Your task to perform on an android device: open a bookmark in the chrome app Image 0: 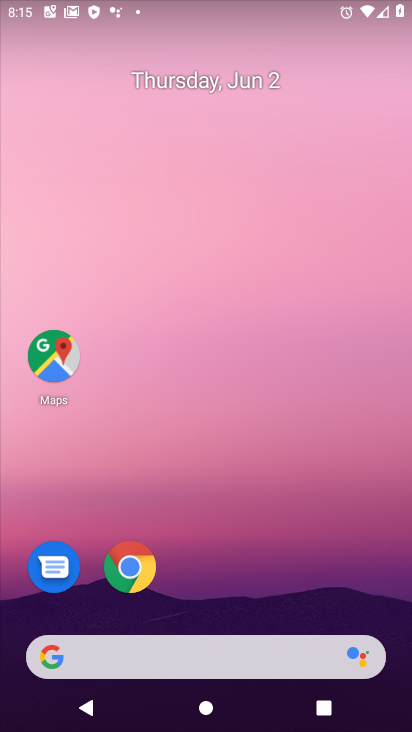
Step 0: click (132, 566)
Your task to perform on an android device: open a bookmark in the chrome app Image 1: 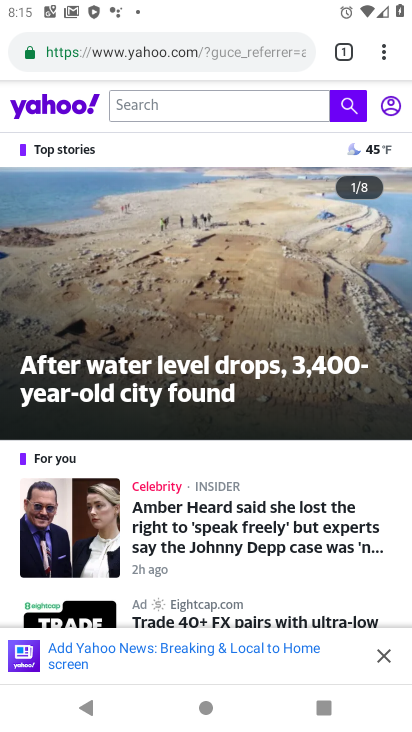
Step 1: click (383, 51)
Your task to perform on an android device: open a bookmark in the chrome app Image 2: 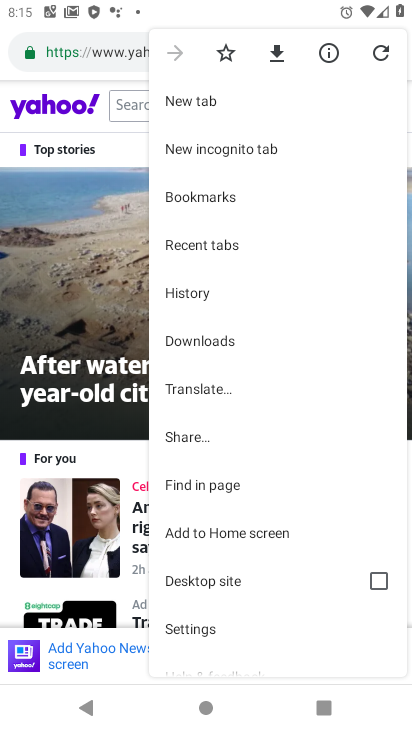
Step 2: click (224, 201)
Your task to perform on an android device: open a bookmark in the chrome app Image 3: 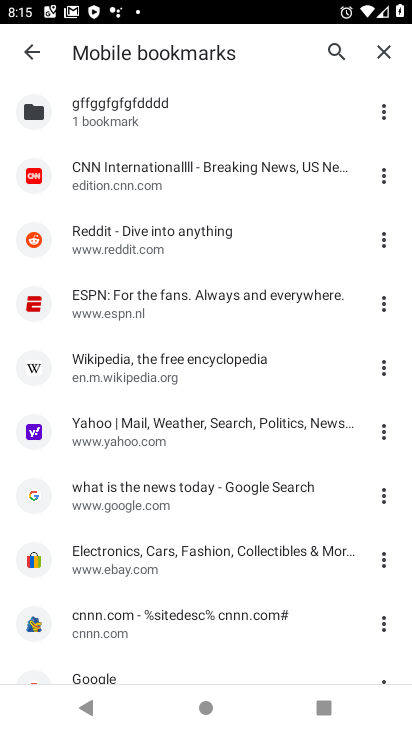
Step 3: task complete